Your task to perform on an android device: Go to privacy settings Image 0: 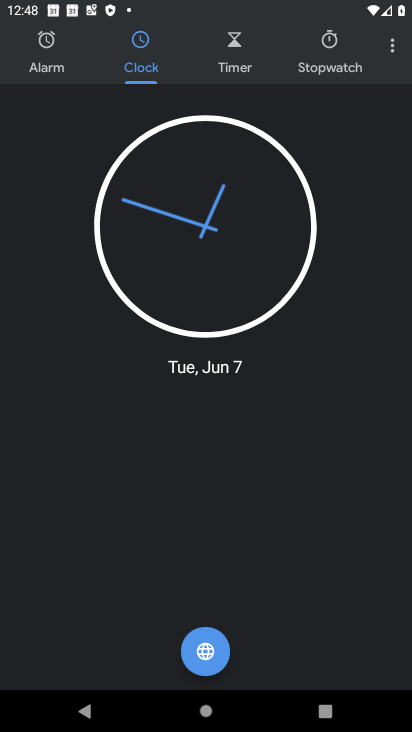
Step 0: press home button
Your task to perform on an android device: Go to privacy settings Image 1: 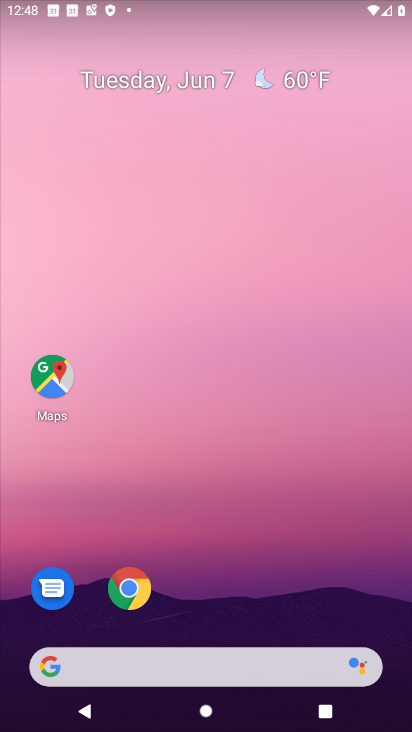
Step 1: drag from (236, 717) to (380, 38)
Your task to perform on an android device: Go to privacy settings Image 2: 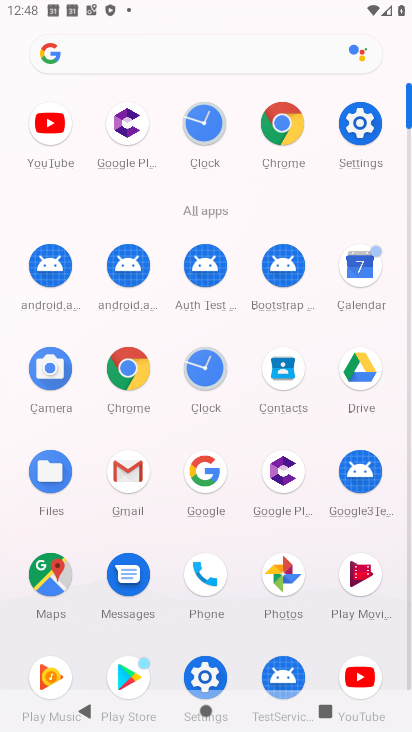
Step 2: click (362, 125)
Your task to perform on an android device: Go to privacy settings Image 3: 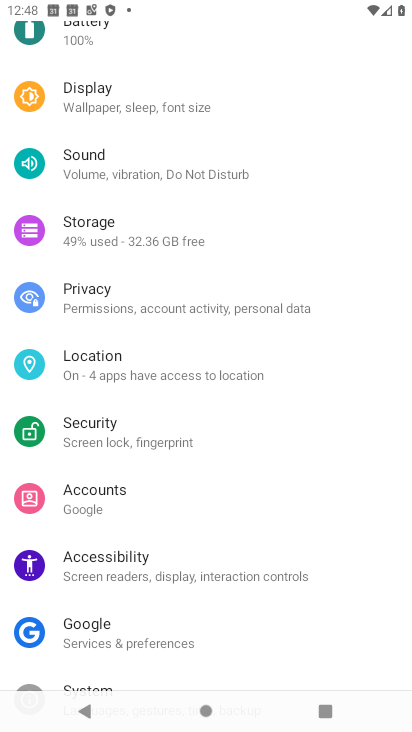
Step 3: click (254, 297)
Your task to perform on an android device: Go to privacy settings Image 4: 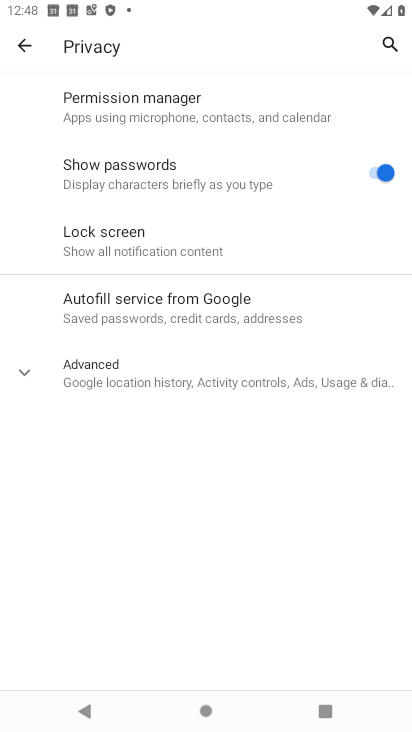
Step 4: task complete